Your task to perform on an android device: What is the recent news? Image 0: 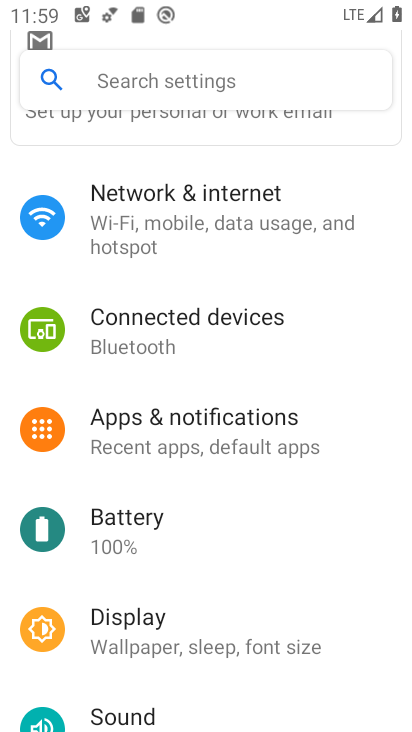
Step 0: press home button
Your task to perform on an android device: What is the recent news? Image 1: 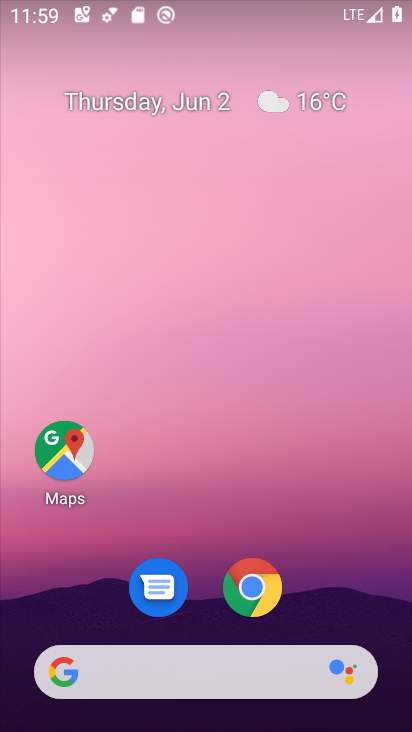
Step 1: click (239, 677)
Your task to perform on an android device: What is the recent news? Image 2: 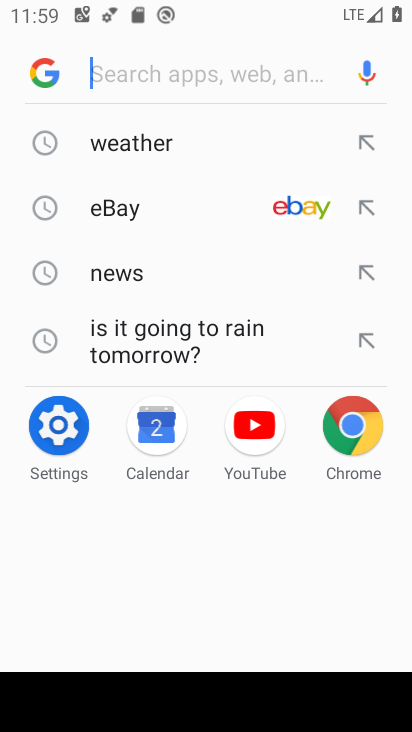
Step 2: click (127, 270)
Your task to perform on an android device: What is the recent news? Image 3: 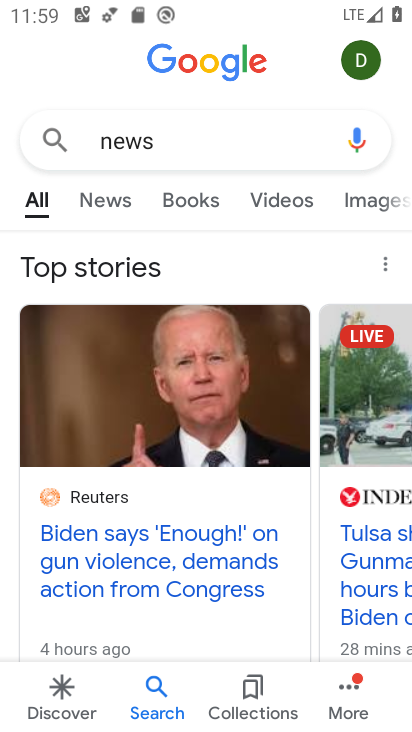
Step 3: click (99, 188)
Your task to perform on an android device: What is the recent news? Image 4: 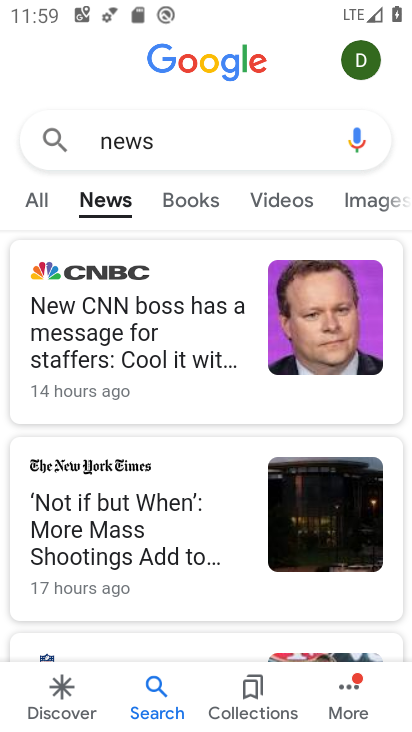
Step 4: task complete